Your task to perform on an android device: toggle javascript in the chrome app Image 0: 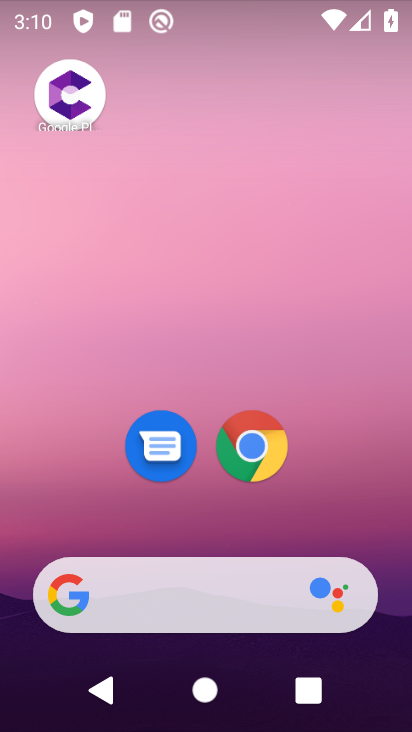
Step 0: click (259, 428)
Your task to perform on an android device: toggle javascript in the chrome app Image 1: 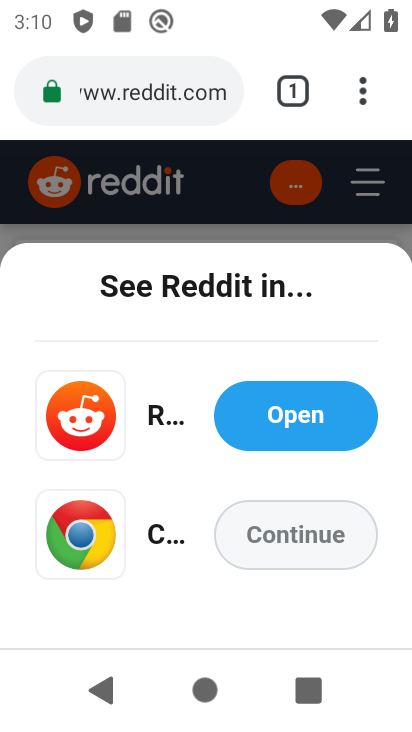
Step 1: click (369, 85)
Your task to perform on an android device: toggle javascript in the chrome app Image 2: 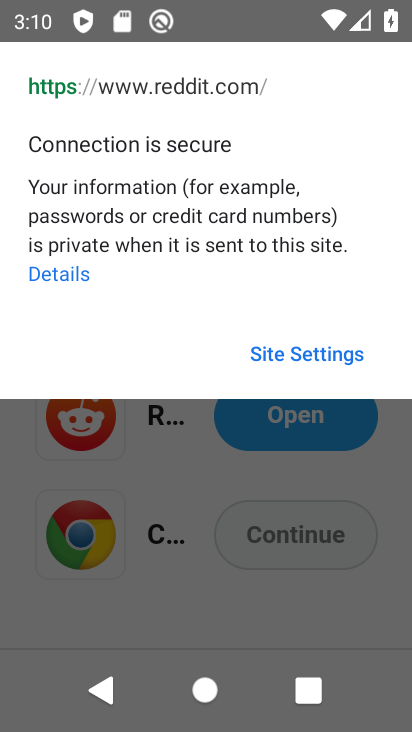
Step 2: press back button
Your task to perform on an android device: toggle javascript in the chrome app Image 3: 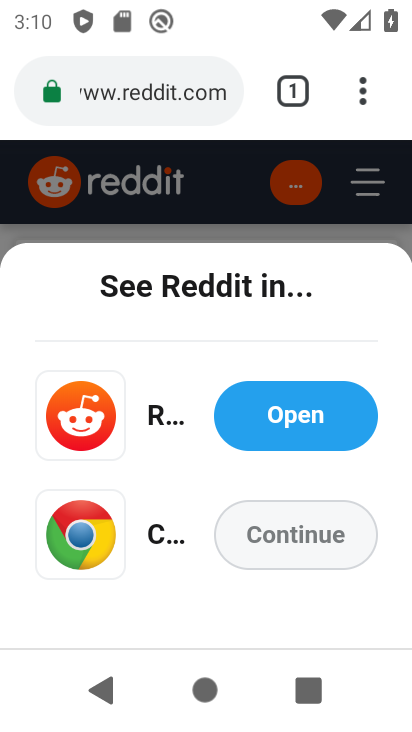
Step 3: click (253, 558)
Your task to perform on an android device: toggle javascript in the chrome app Image 4: 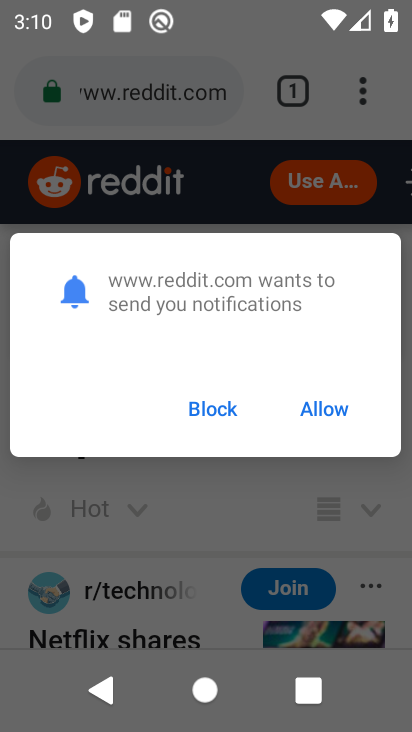
Step 4: click (225, 410)
Your task to perform on an android device: toggle javascript in the chrome app Image 5: 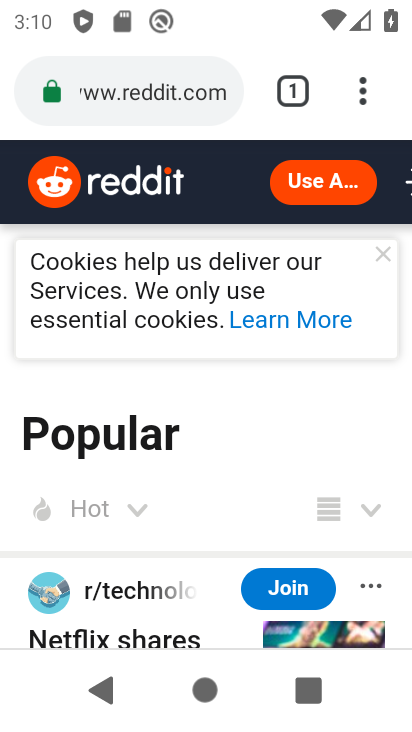
Step 5: click (360, 82)
Your task to perform on an android device: toggle javascript in the chrome app Image 6: 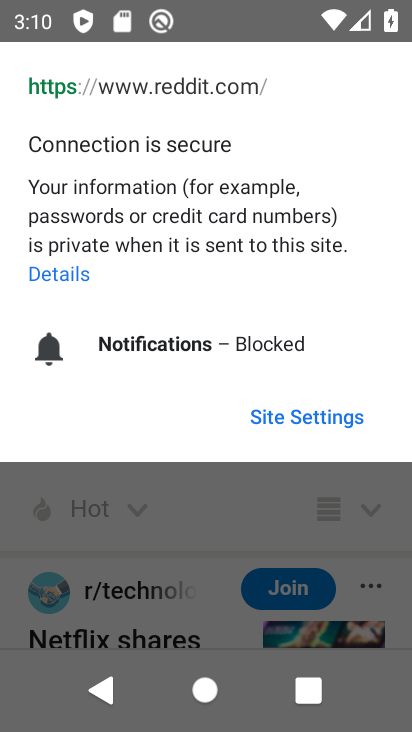
Step 6: click (267, 410)
Your task to perform on an android device: toggle javascript in the chrome app Image 7: 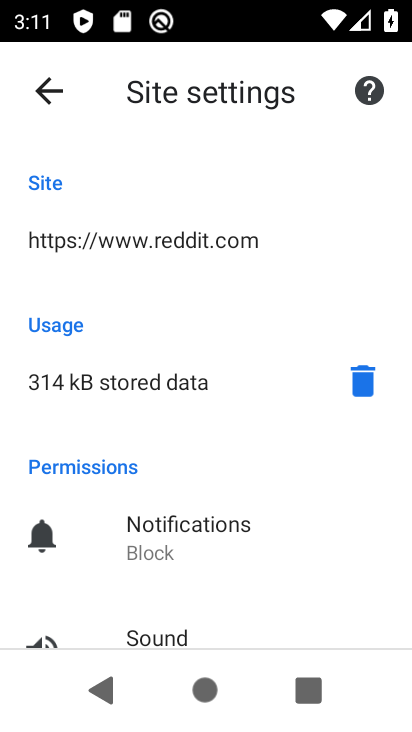
Step 7: drag from (139, 528) to (164, 127)
Your task to perform on an android device: toggle javascript in the chrome app Image 8: 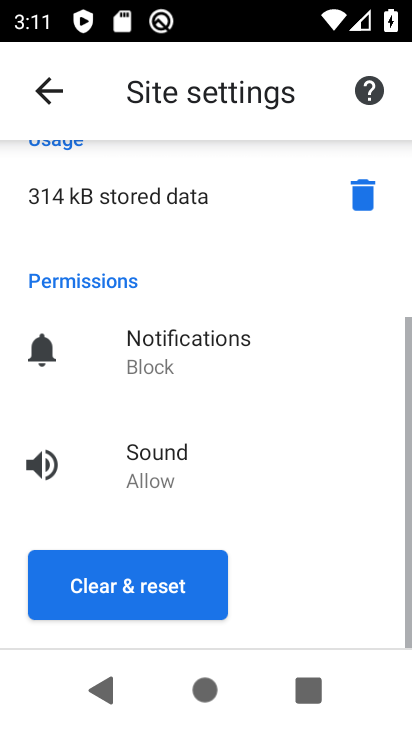
Step 8: click (55, 91)
Your task to perform on an android device: toggle javascript in the chrome app Image 9: 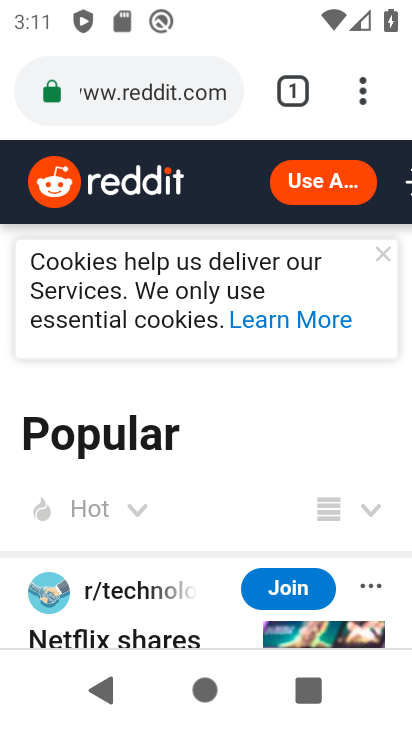
Step 9: click (366, 95)
Your task to perform on an android device: toggle javascript in the chrome app Image 10: 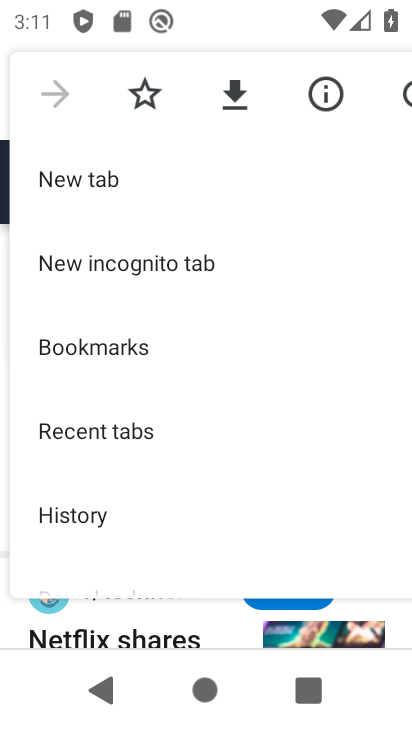
Step 10: drag from (90, 472) to (146, 100)
Your task to perform on an android device: toggle javascript in the chrome app Image 11: 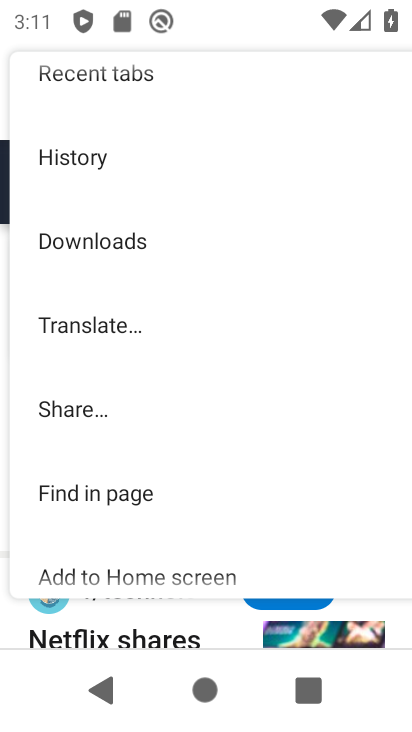
Step 11: drag from (90, 471) to (166, 140)
Your task to perform on an android device: toggle javascript in the chrome app Image 12: 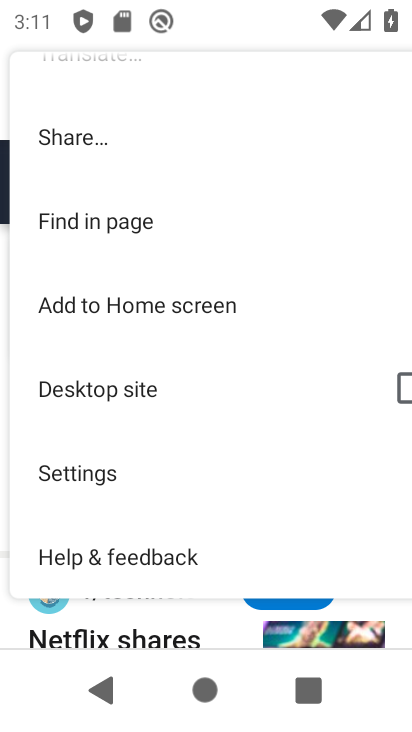
Step 12: click (86, 475)
Your task to perform on an android device: toggle javascript in the chrome app Image 13: 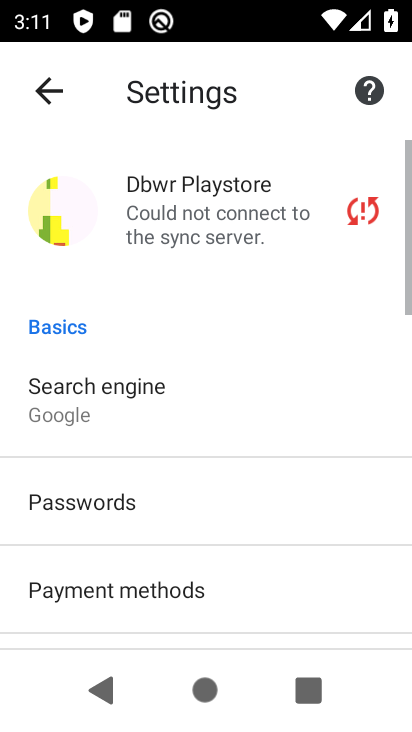
Step 13: drag from (122, 552) to (177, 150)
Your task to perform on an android device: toggle javascript in the chrome app Image 14: 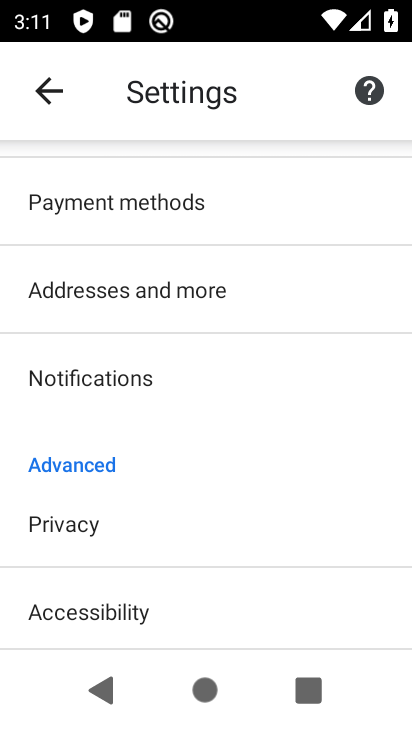
Step 14: drag from (96, 542) to (122, 232)
Your task to perform on an android device: toggle javascript in the chrome app Image 15: 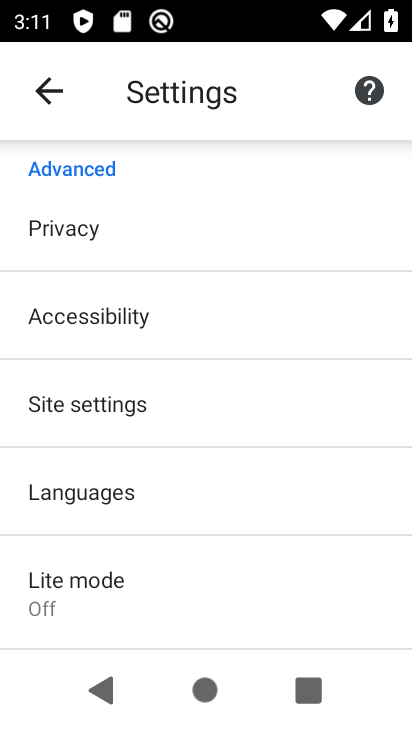
Step 15: click (112, 411)
Your task to perform on an android device: toggle javascript in the chrome app Image 16: 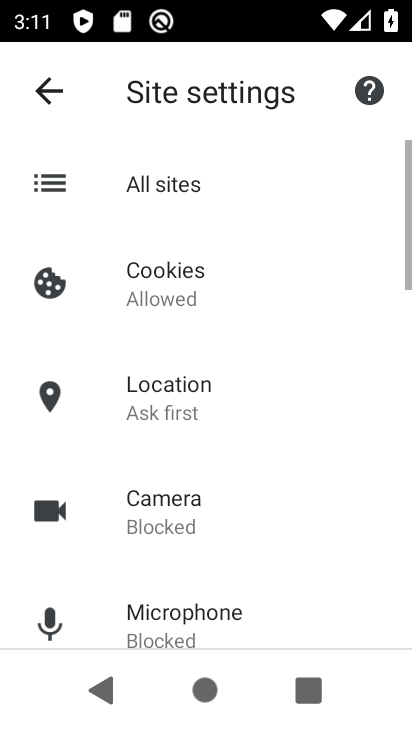
Step 16: drag from (170, 584) to (232, 173)
Your task to perform on an android device: toggle javascript in the chrome app Image 17: 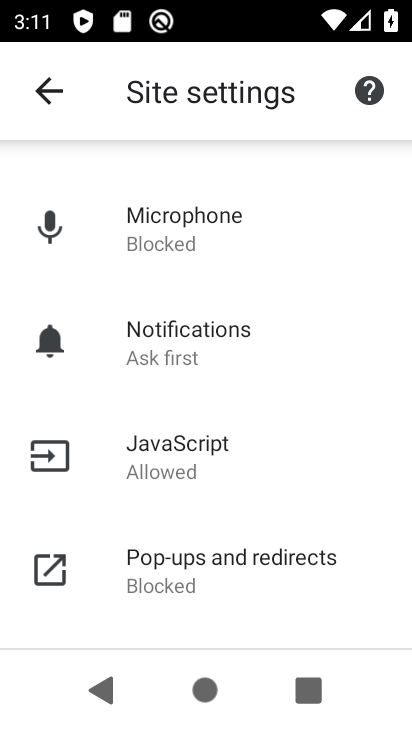
Step 17: click (195, 469)
Your task to perform on an android device: toggle javascript in the chrome app Image 18: 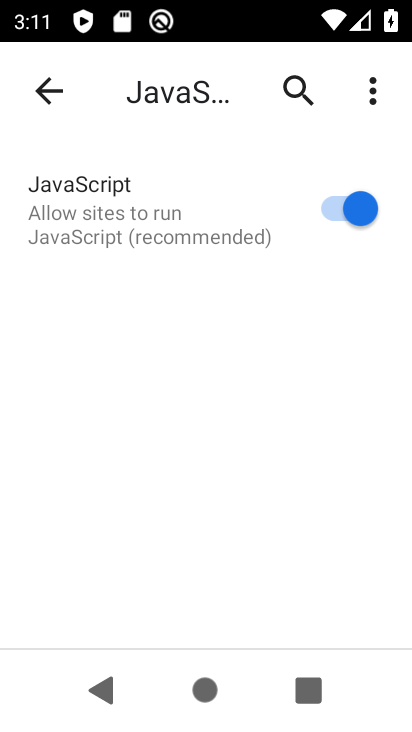
Step 18: click (338, 207)
Your task to perform on an android device: toggle javascript in the chrome app Image 19: 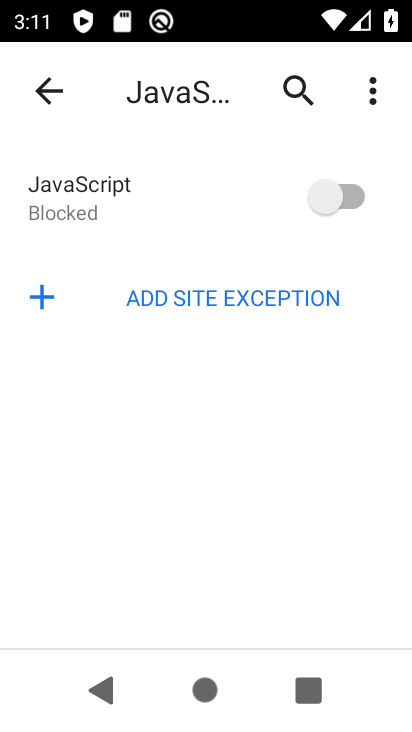
Step 19: task complete